Your task to perform on an android device: Go to privacy settings Image 0: 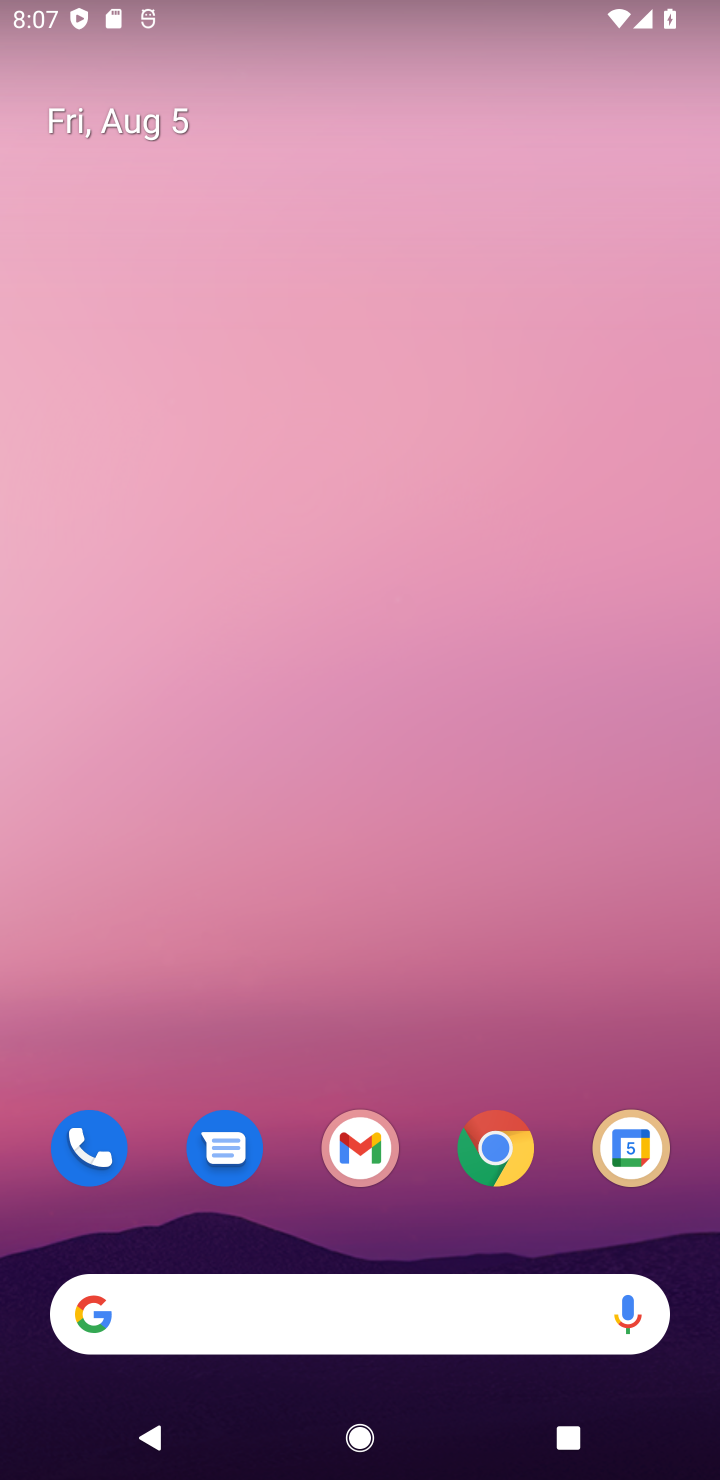
Step 0: drag from (419, 186) to (419, 61)
Your task to perform on an android device: Go to privacy settings Image 1: 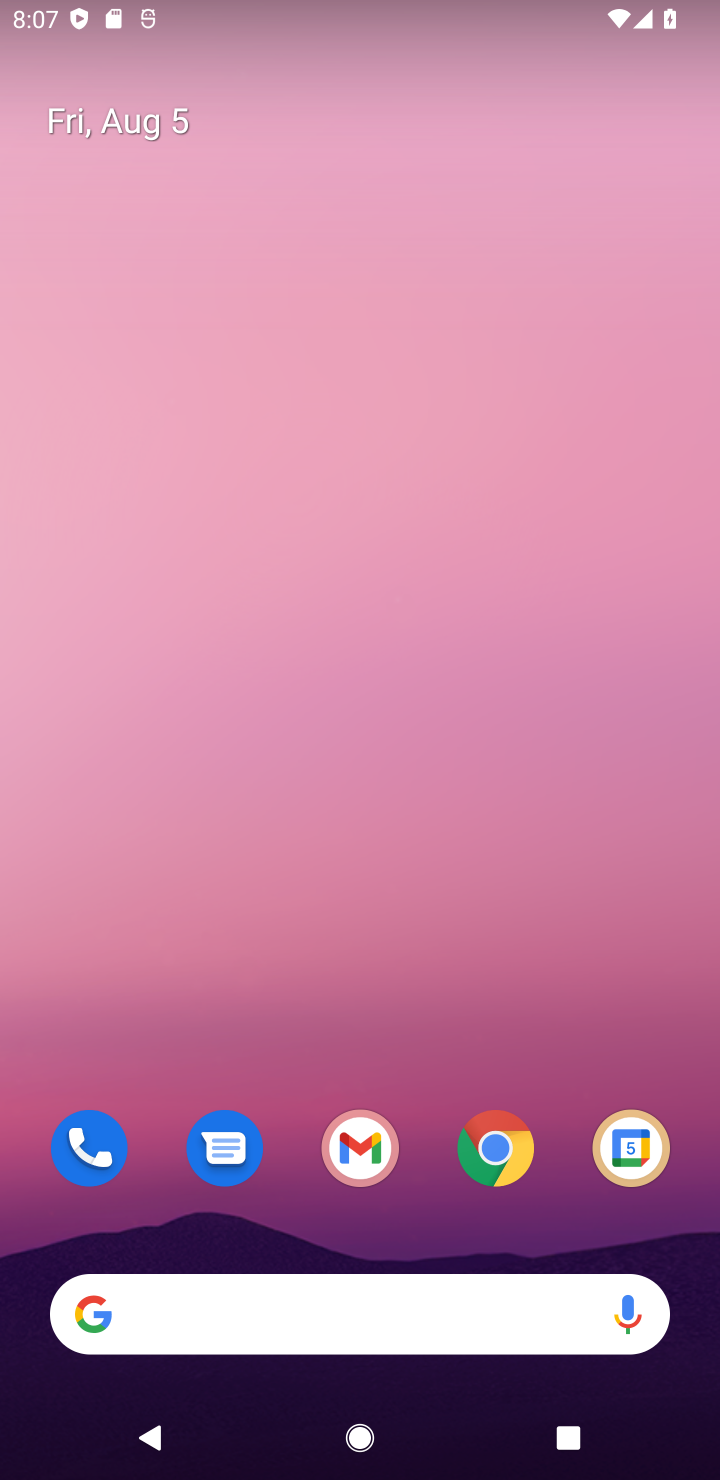
Step 1: drag from (409, 1235) to (410, 305)
Your task to perform on an android device: Go to privacy settings Image 2: 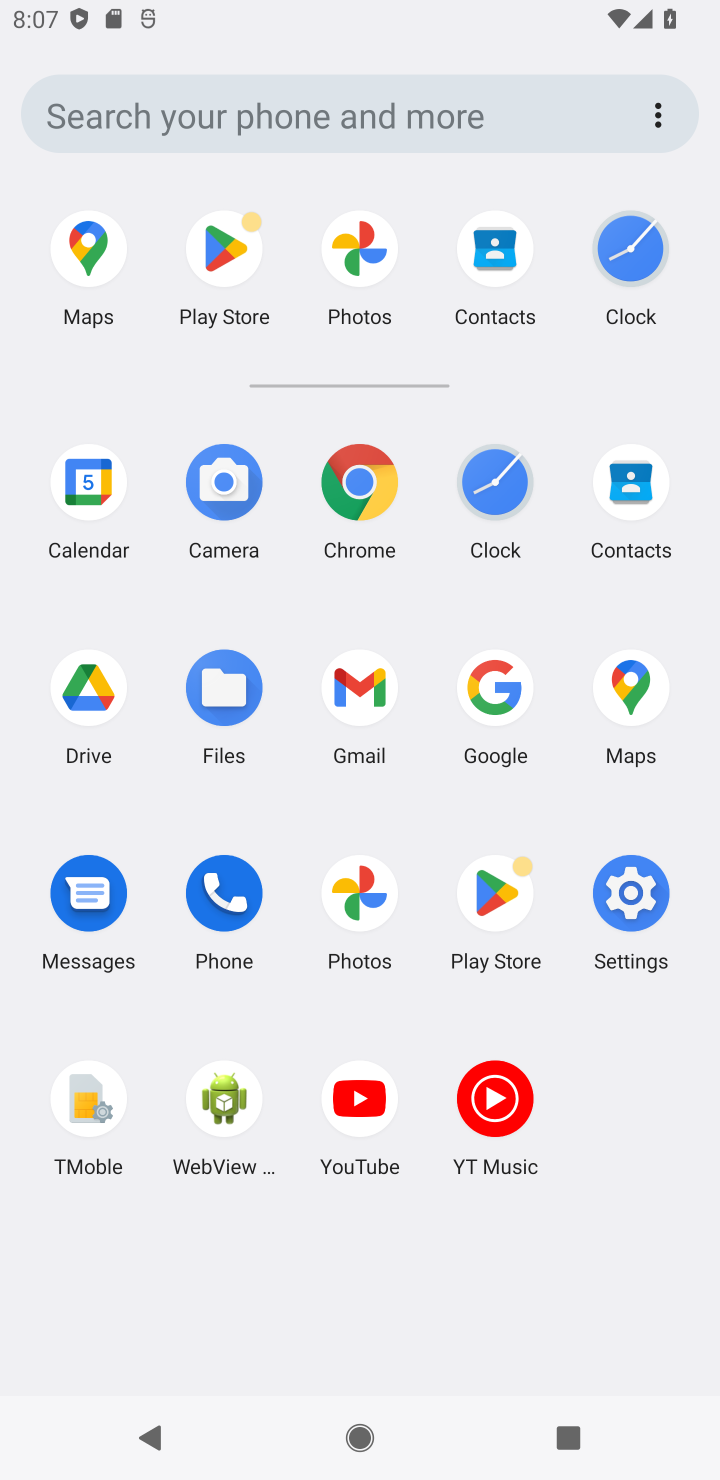
Step 2: click (633, 900)
Your task to perform on an android device: Go to privacy settings Image 3: 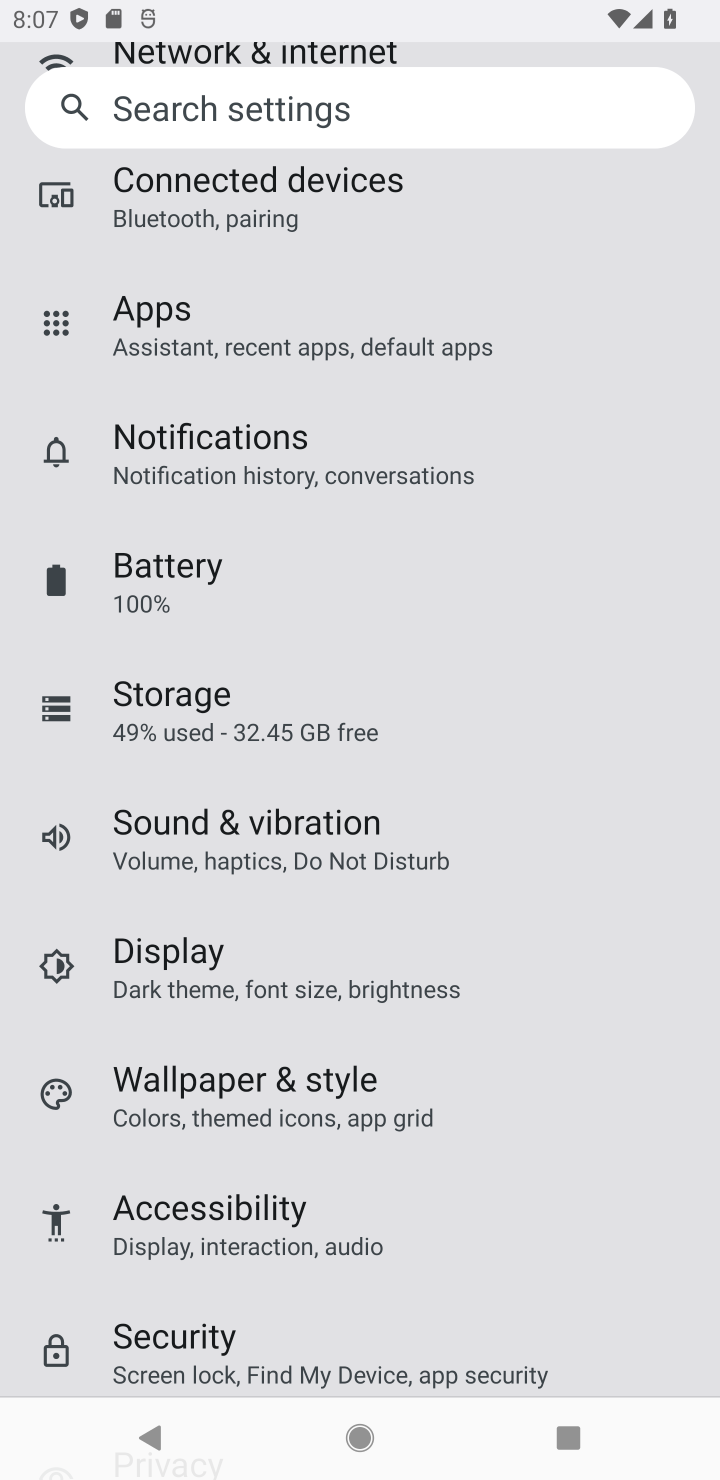
Step 3: drag from (326, 1271) to (330, 507)
Your task to perform on an android device: Go to privacy settings Image 4: 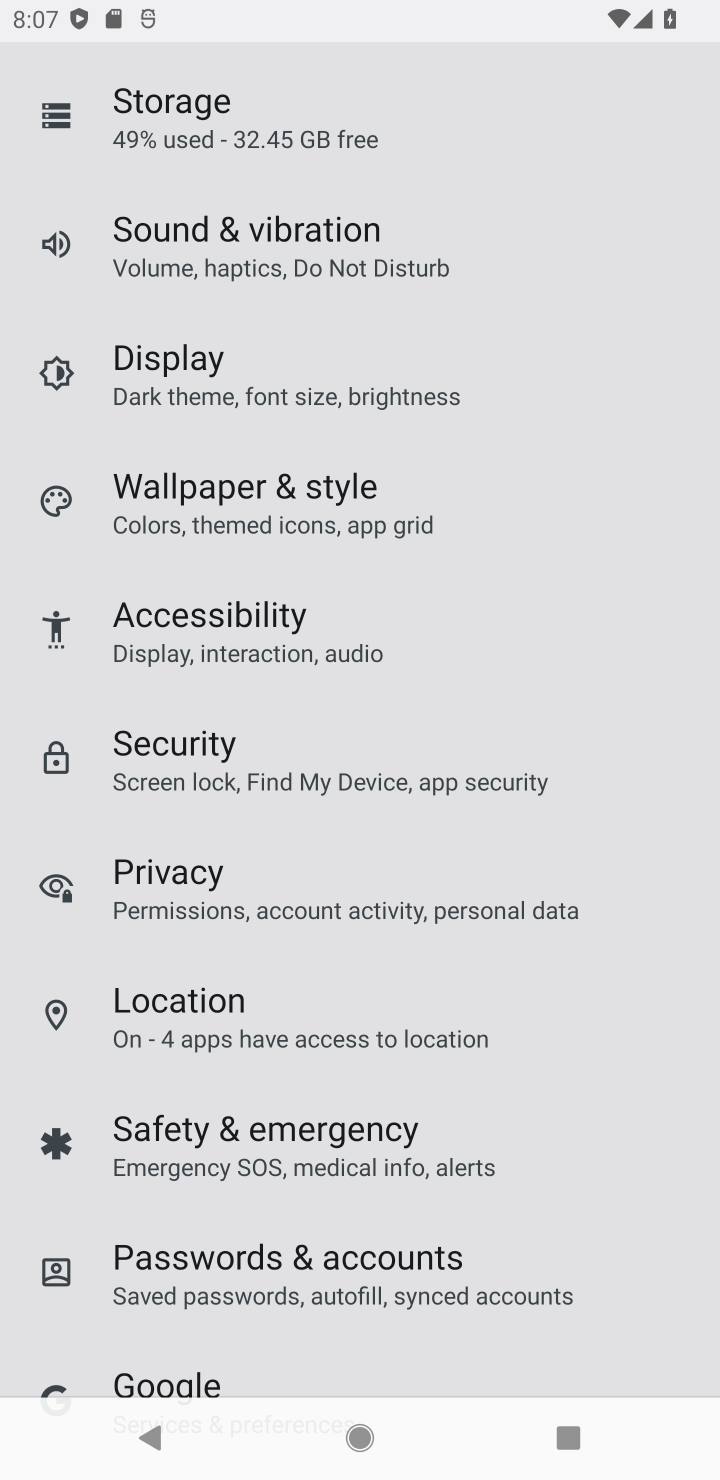
Step 4: click (367, 906)
Your task to perform on an android device: Go to privacy settings Image 5: 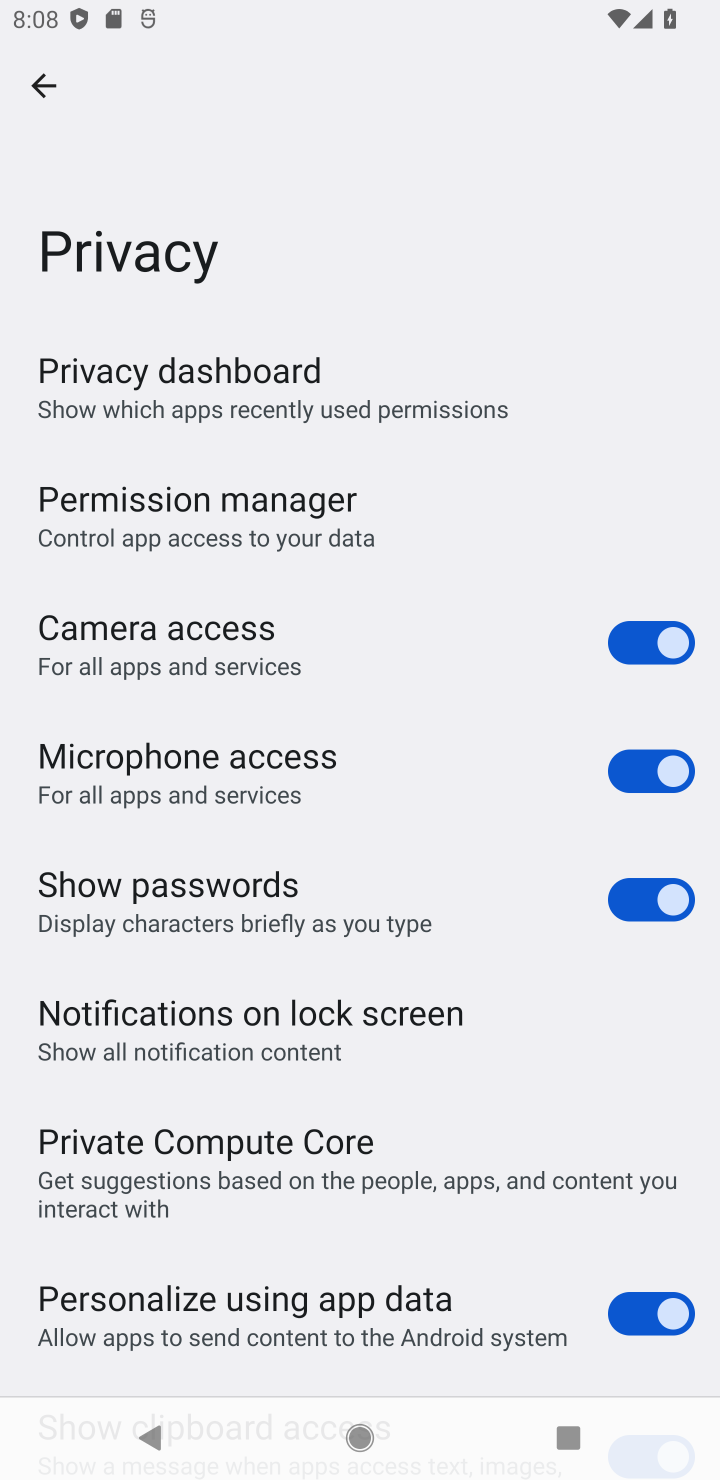
Step 5: task complete